Your task to perform on an android device: Is it going to rain this weekend? Image 0: 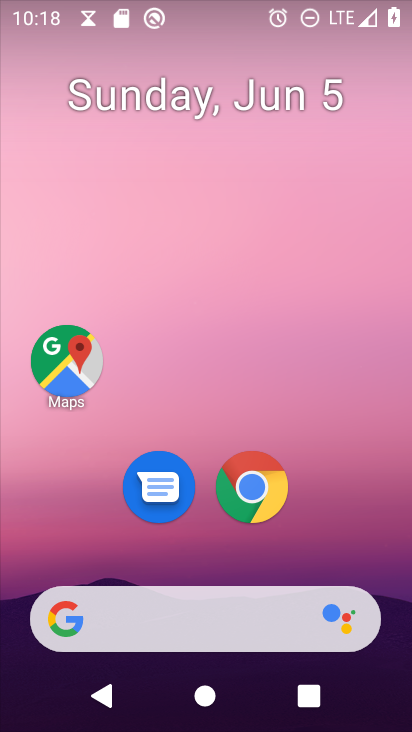
Step 0: click (240, 481)
Your task to perform on an android device: Is it going to rain this weekend? Image 1: 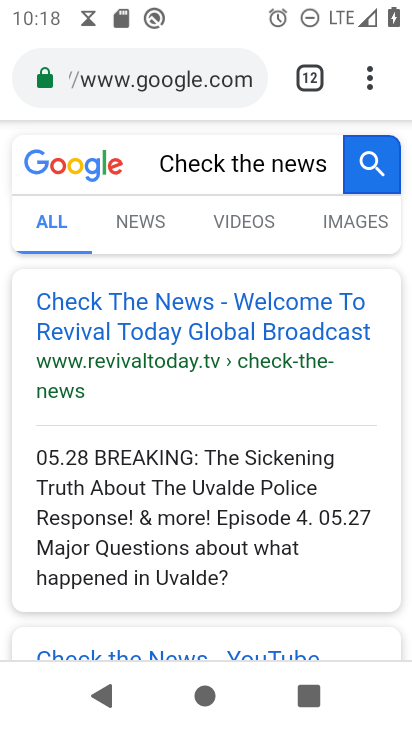
Step 1: click (382, 77)
Your task to perform on an android device: Is it going to rain this weekend? Image 2: 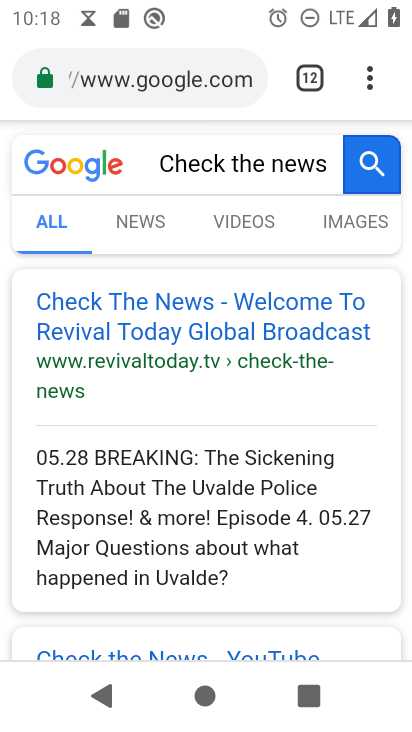
Step 2: click (374, 77)
Your task to perform on an android device: Is it going to rain this weekend? Image 3: 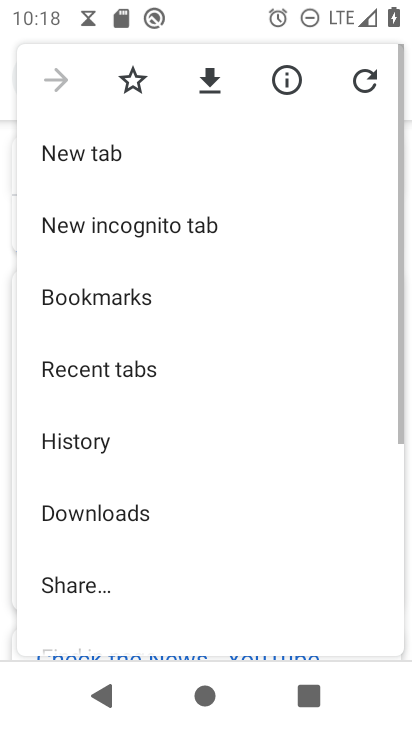
Step 3: click (113, 156)
Your task to perform on an android device: Is it going to rain this weekend? Image 4: 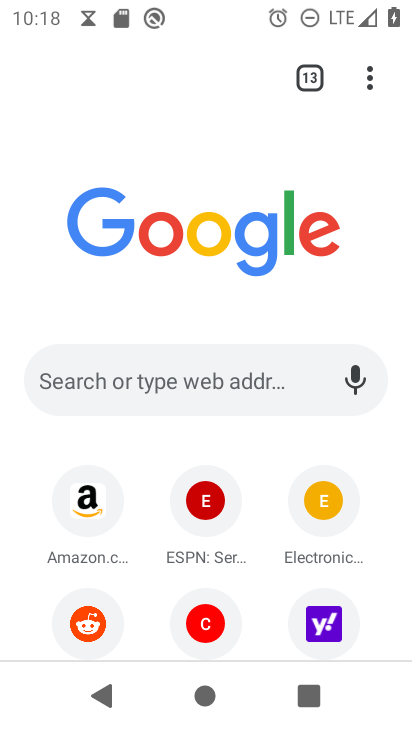
Step 4: click (193, 374)
Your task to perform on an android device: Is it going to rain this weekend? Image 5: 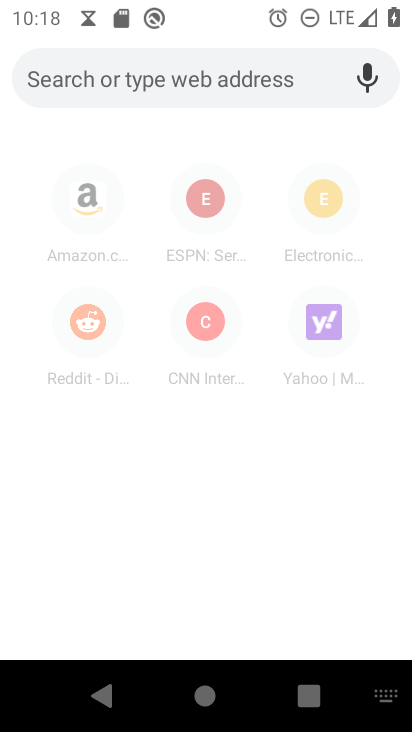
Step 5: type "Is it going to rain this weekend?"
Your task to perform on an android device: Is it going to rain this weekend? Image 6: 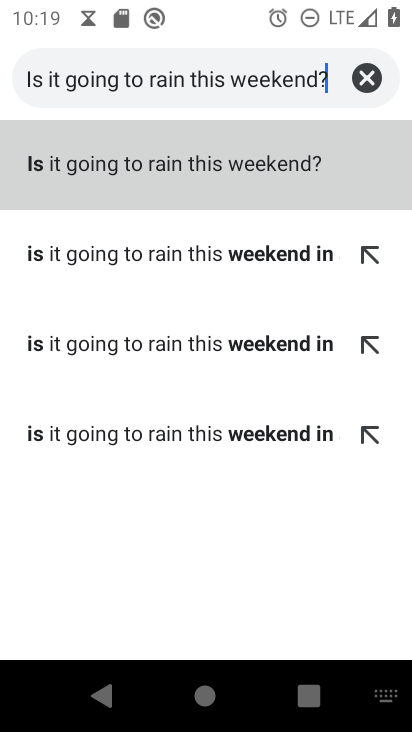
Step 6: click (149, 165)
Your task to perform on an android device: Is it going to rain this weekend? Image 7: 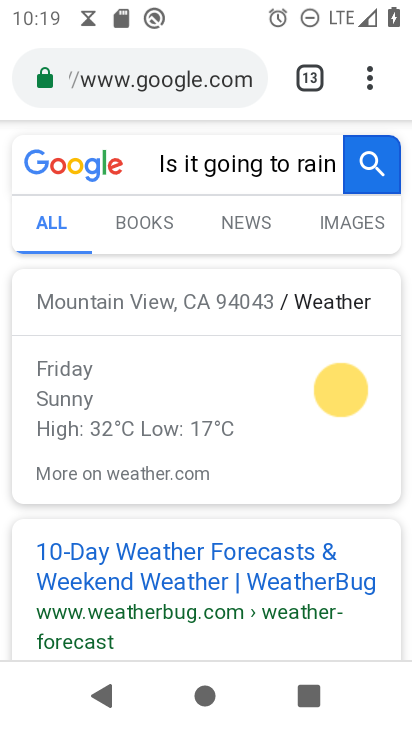
Step 7: task complete